Your task to perform on an android device: change the clock display to digital Image 0: 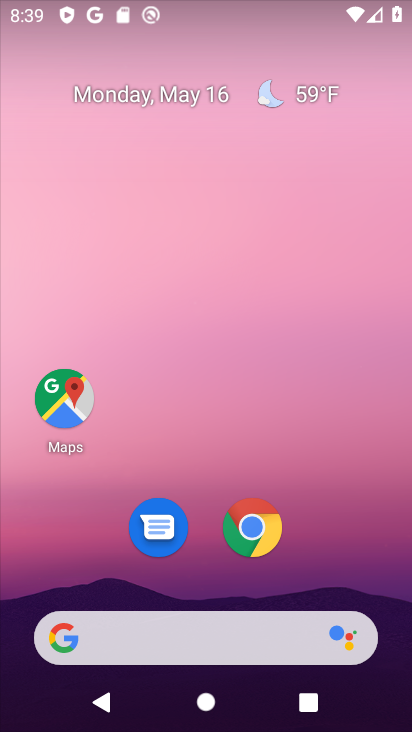
Step 0: drag from (291, 580) to (278, 264)
Your task to perform on an android device: change the clock display to digital Image 1: 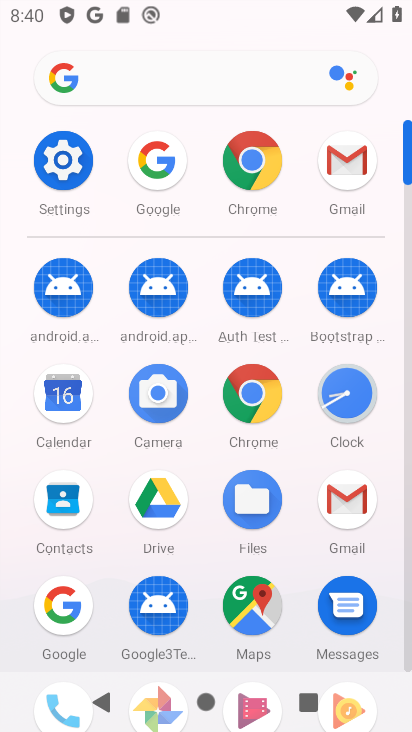
Step 1: click (344, 398)
Your task to perform on an android device: change the clock display to digital Image 2: 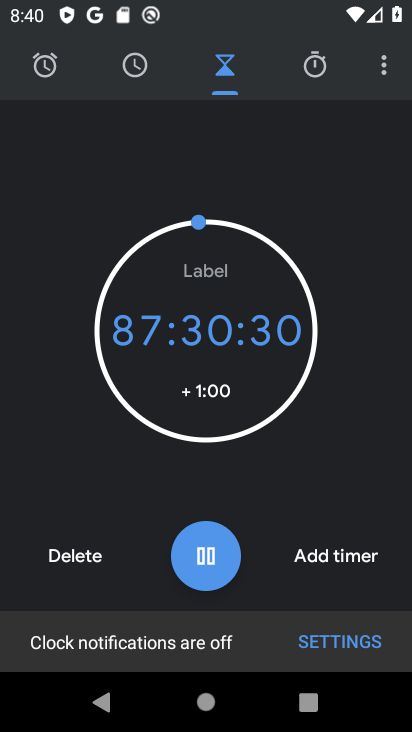
Step 2: click (381, 68)
Your task to perform on an android device: change the clock display to digital Image 3: 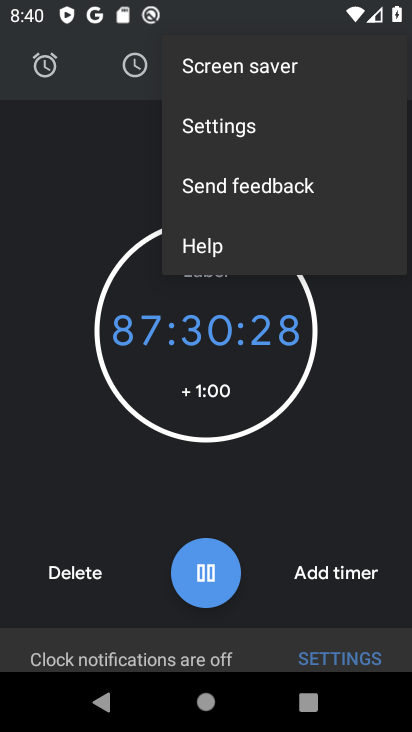
Step 3: click (230, 121)
Your task to perform on an android device: change the clock display to digital Image 4: 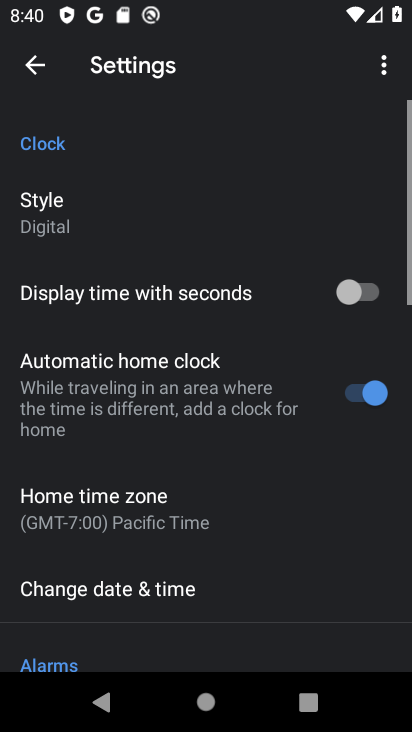
Step 4: drag from (172, 558) to (176, 462)
Your task to perform on an android device: change the clock display to digital Image 5: 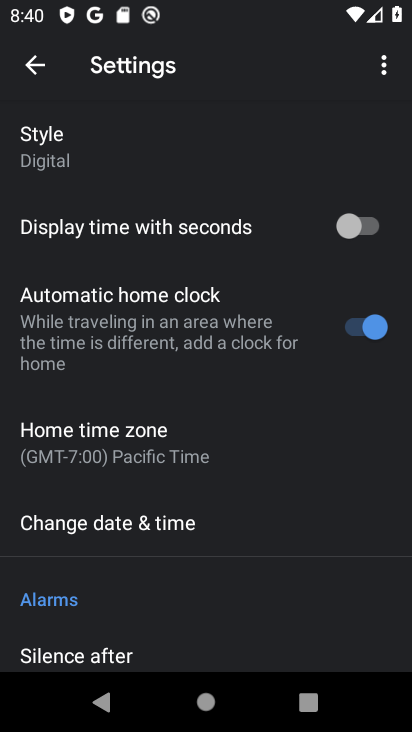
Step 5: click (356, 217)
Your task to perform on an android device: change the clock display to digital Image 6: 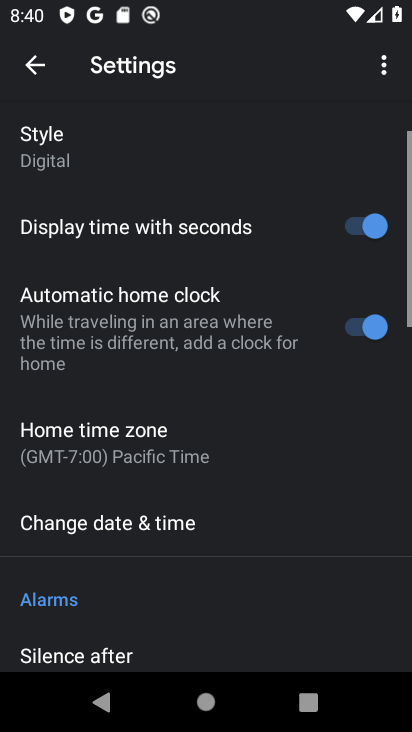
Step 6: click (356, 217)
Your task to perform on an android device: change the clock display to digital Image 7: 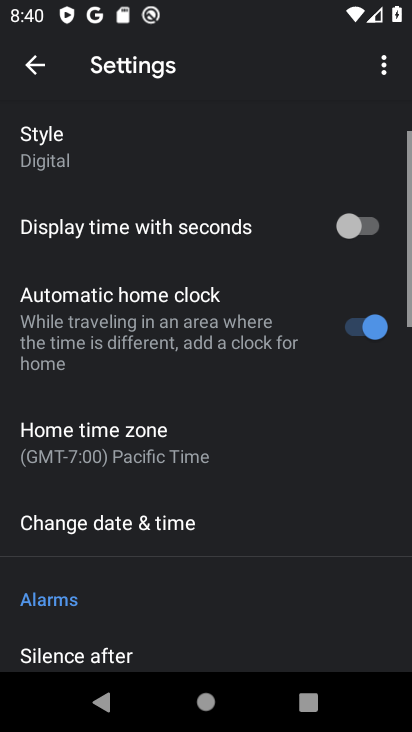
Step 7: click (64, 150)
Your task to perform on an android device: change the clock display to digital Image 8: 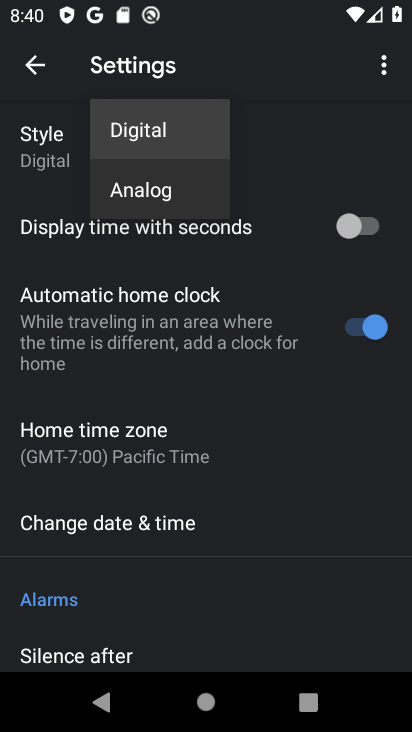
Step 8: click (148, 173)
Your task to perform on an android device: change the clock display to digital Image 9: 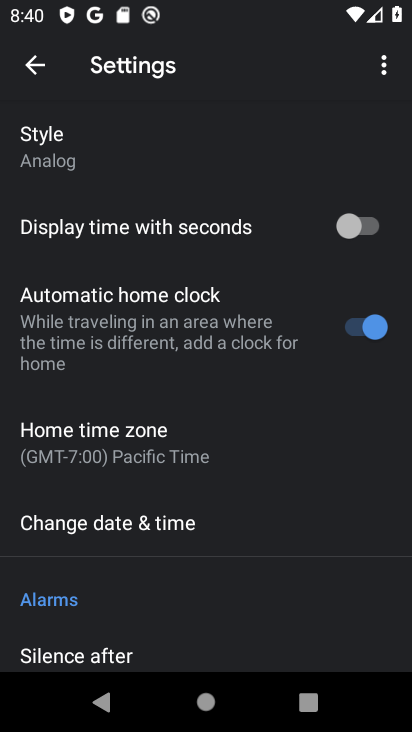
Step 9: task complete